Your task to perform on an android device: Look up the best rated coffee maker on Lowe's. Image 0: 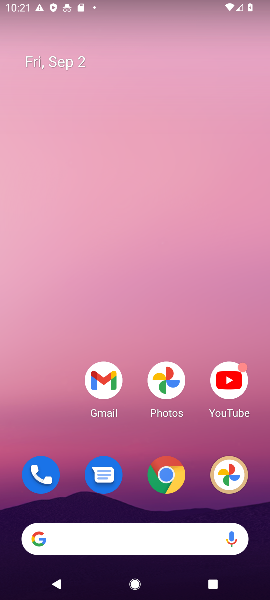
Step 0: click (168, 470)
Your task to perform on an android device: Look up the best rated coffee maker on Lowe's. Image 1: 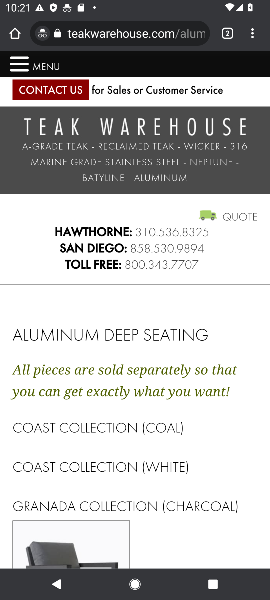
Step 1: click (126, 30)
Your task to perform on an android device: Look up the best rated coffee maker on Lowe's. Image 2: 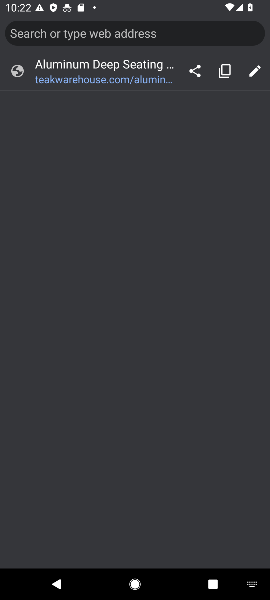
Step 2: type "Lowes"
Your task to perform on an android device: Look up the best rated coffee maker on Lowe's. Image 3: 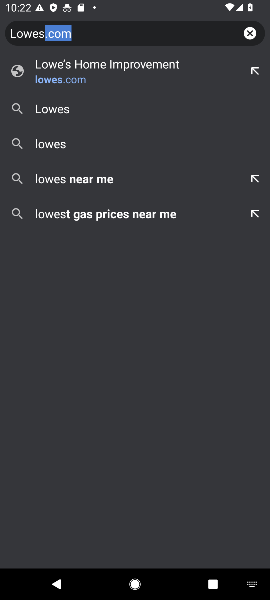
Step 3: click (55, 120)
Your task to perform on an android device: Look up the best rated coffee maker on Lowe's. Image 4: 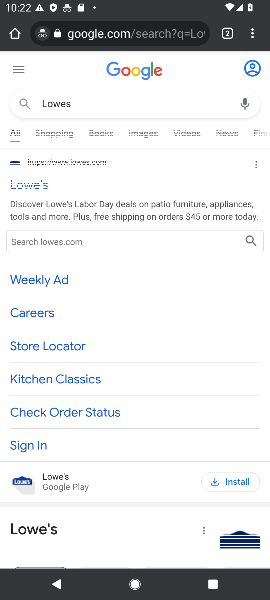
Step 4: click (35, 189)
Your task to perform on an android device: Look up the best rated coffee maker on Lowe's. Image 5: 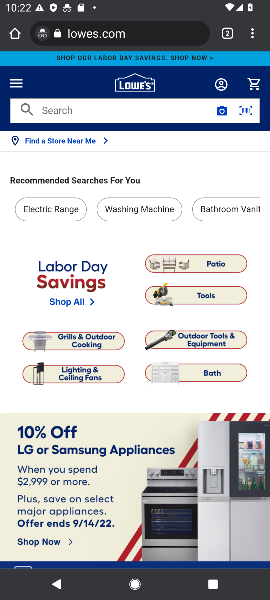
Step 5: click (76, 115)
Your task to perform on an android device: Look up the best rated coffee maker on Lowe's. Image 6: 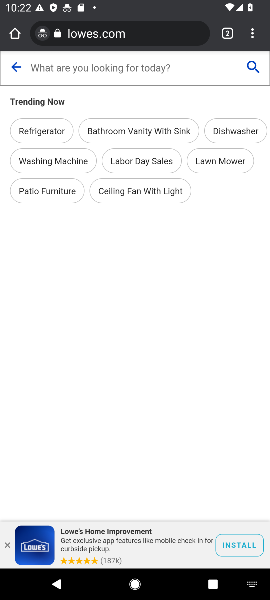
Step 6: type "best rated coffee maker"
Your task to perform on an android device: Look up the best rated coffee maker on Lowe's. Image 7: 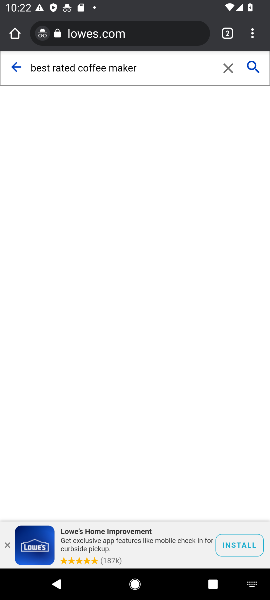
Step 7: click (253, 66)
Your task to perform on an android device: Look up the best rated coffee maker on Lowe's. Image 8: 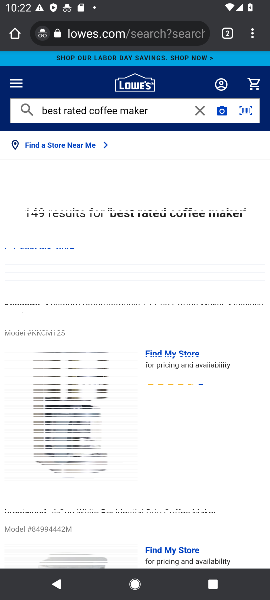
Step 8: task complete